Your task to perform on an android device: read, delete, or share a saved page in the chrome app Image 0: 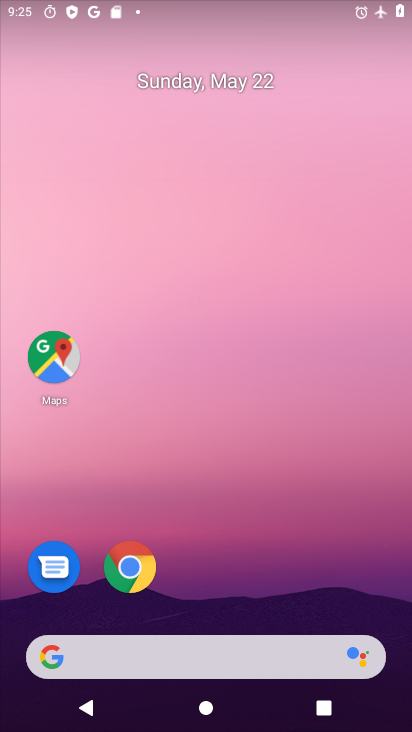
Step 0: click (133, 558)
Your task to perform on an android device: read, delete, or share a saved page in the chrome app Image 1: 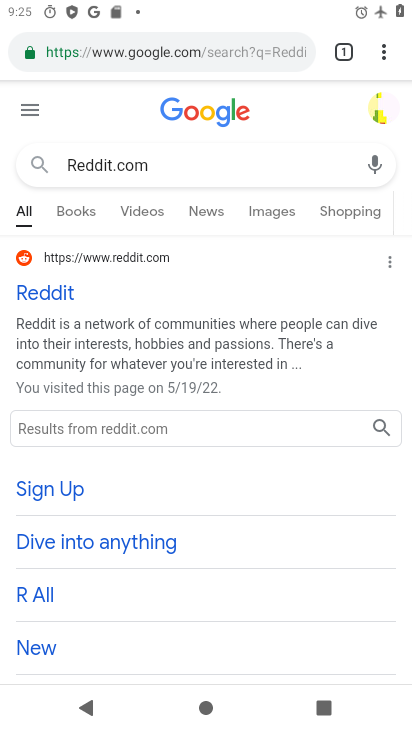
Step 1: click (384, 55)
Your task to perform on an android device: read, delete, or share a saved page in the chrome app Image 2: 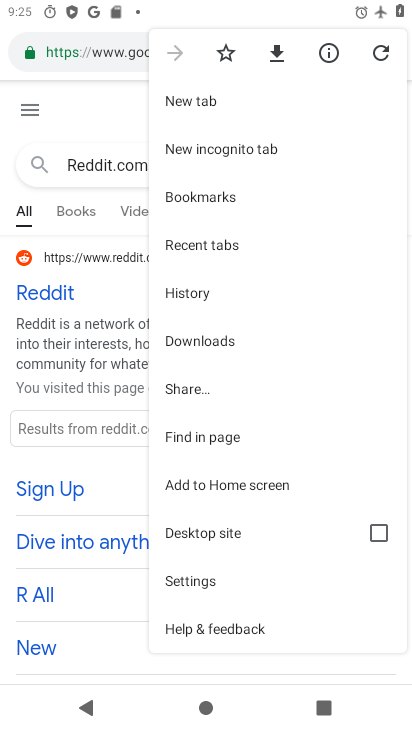
Step 2: click (212, 333)
Your task to perform on an android device: read, delete, or share a saved page in the chrome app Image 3: 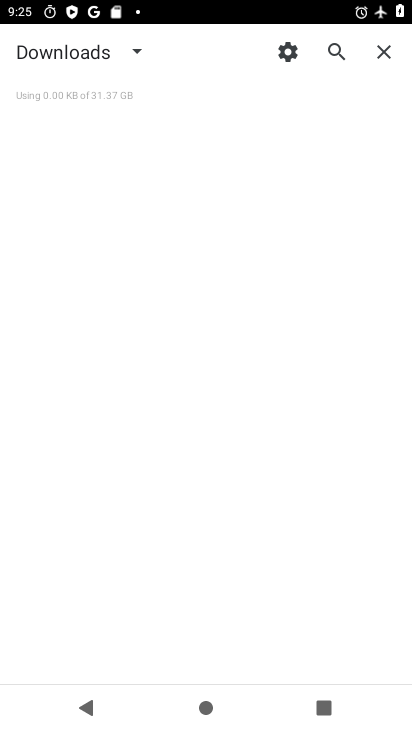
Step 3: task complete